Your task to perform on an android device: Open Chrome and go to settings Image 0: 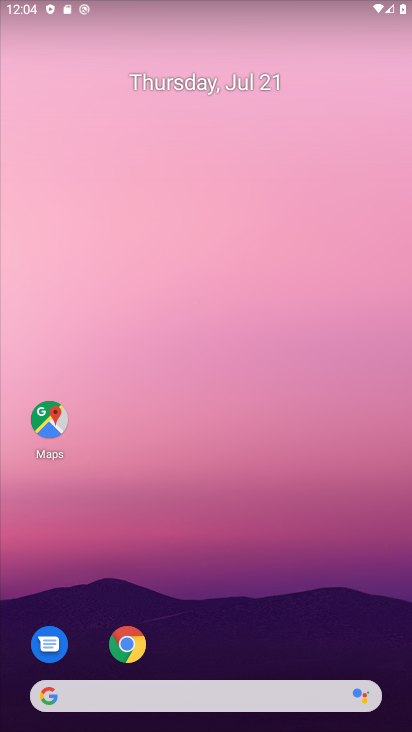
Step 0: press home button
Your task to perform on an android device: Open Chrome and go to settings Image 1: 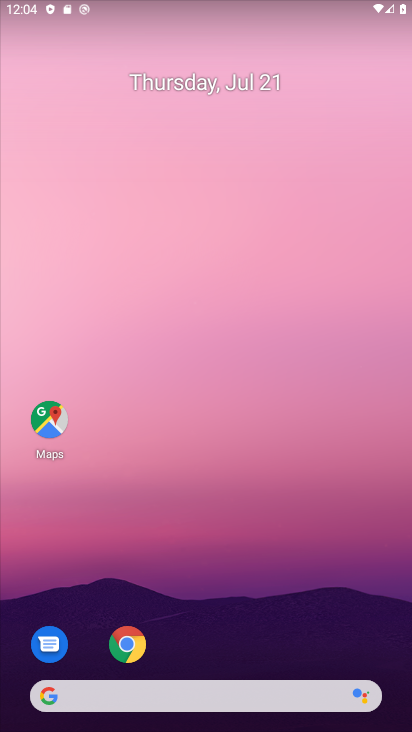
Step 1: click (280, 137)
Your task to perform on an android device: Open Chrome and go to settings Image 2: 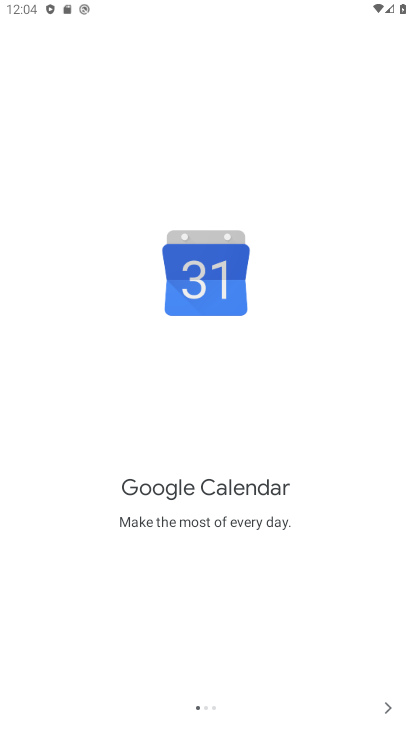
Step 2: press home button
Your task to perform on an android device: Open Chrome and go to settings Image 3: 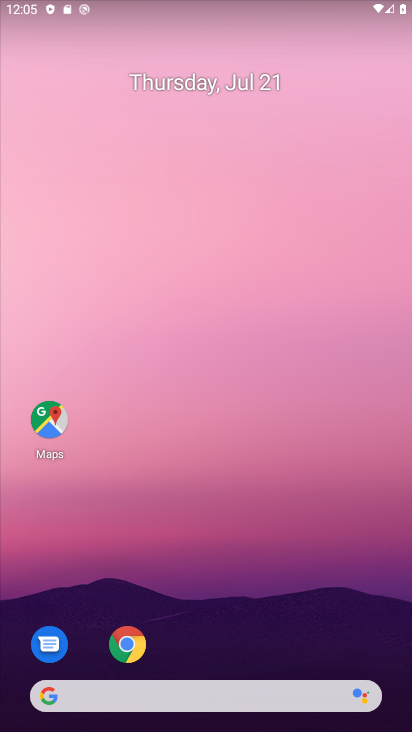
Step 3: drag from (262, 532) to (318, 27)
Your task to perform on an android device: Open Chrome and go to settings Image 4: 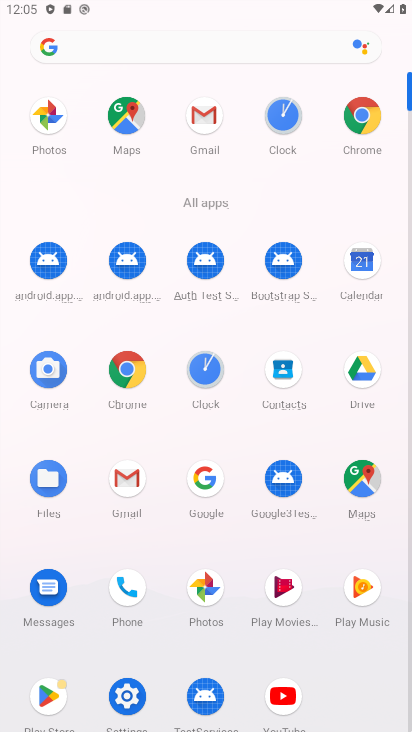
Step 4: click (354, 132)
Your task to perform on an android device: Open Chrome and go to settings Image 5: 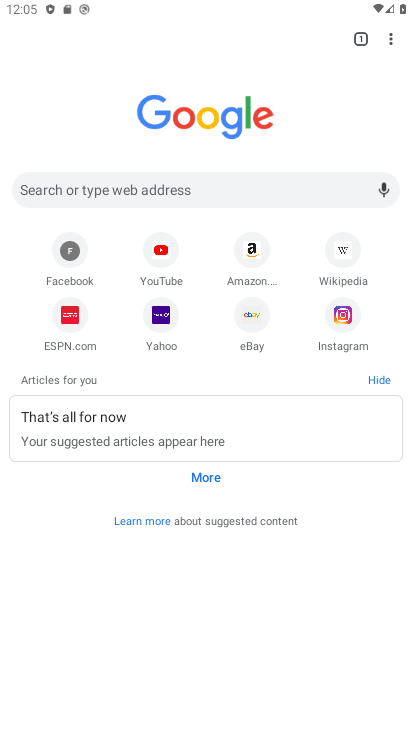
Step 5: task complete